Your task to perform on an android device: open device folders in google photos Image 0: 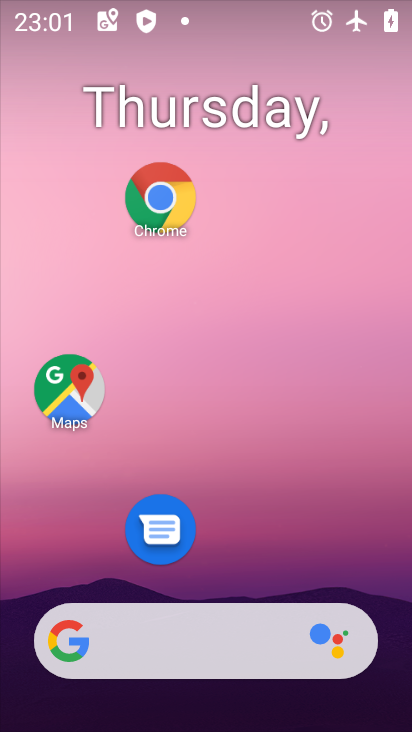
Step 0: drag from (222, 548) to (203, 73)
Your task to perform on an android device: open device folders in google photos Image 1: 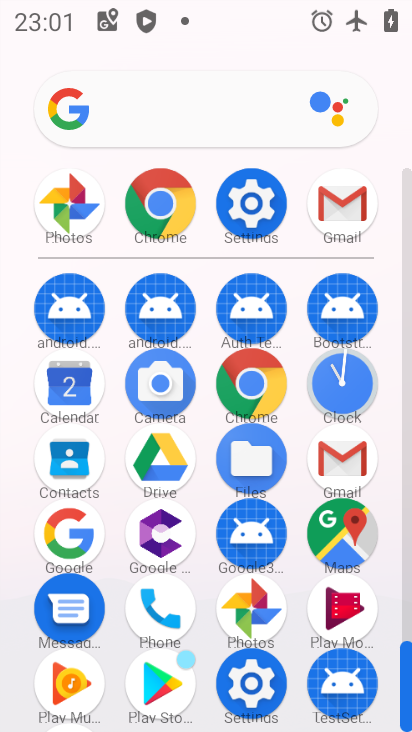
Step 1: click (74, 204)
Your task to perform on an android device: open device folders in google photos Image 2: 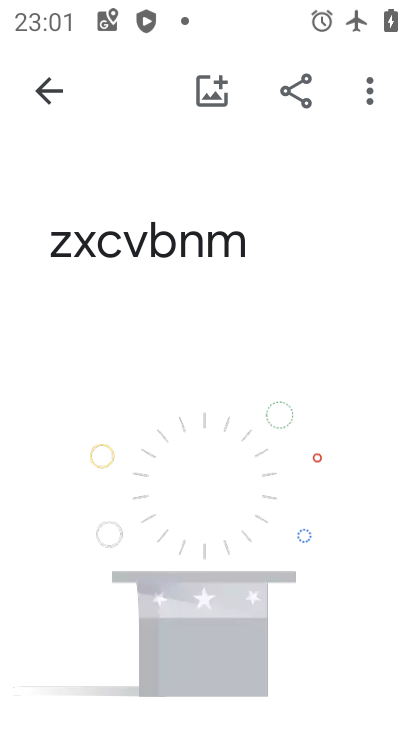
Step 2: click (50, 96)
Your task to perform on an android device: open device folders in google photos Image 3: 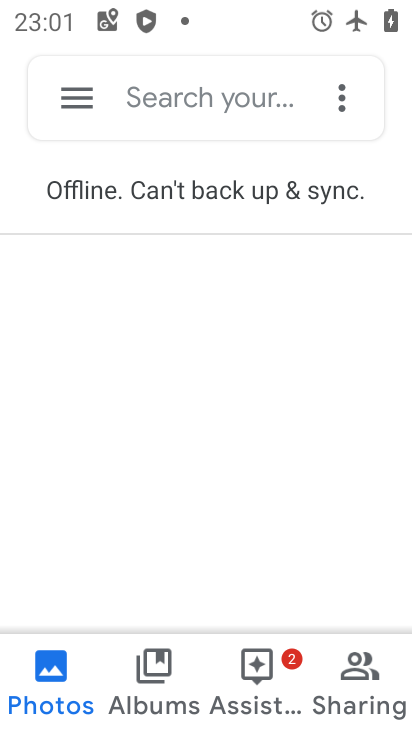
Step 3: click (65, 98)
Your task to perform on an android device: open device folders in google photos Image 4: 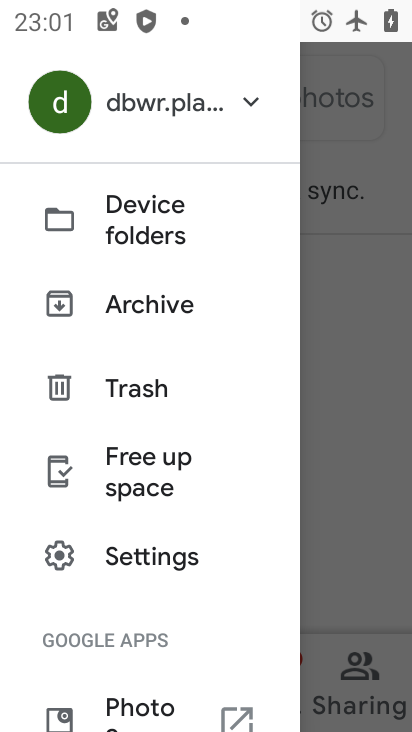
Step 4: click (142, 209)
Your task to perform on an android device: open device folders in google photos Image 5: 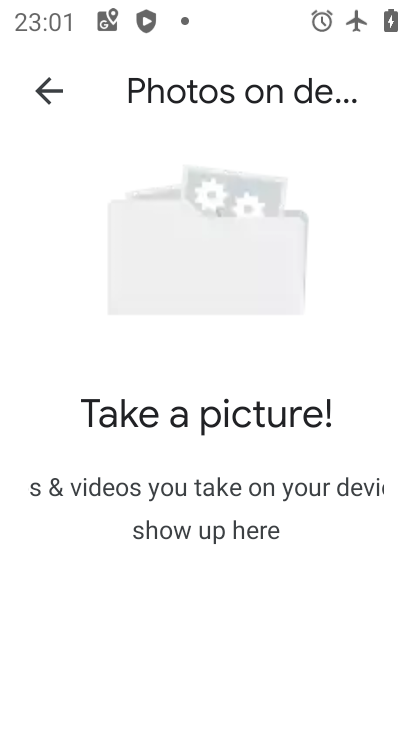
Step 5: task complete